Your task to perform on an android device: turn on the 24-hour format for clock Image 0: 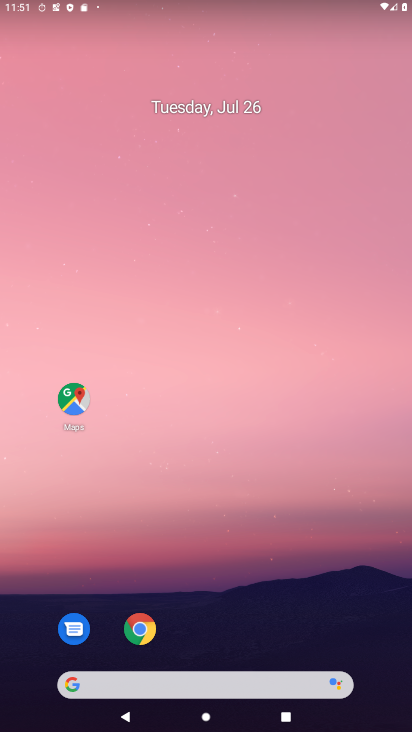
Step 0: drag from (364, 639) to (162, 45)
Your task to perform on an android device: turn on the 24-hour format for clock Image 1: 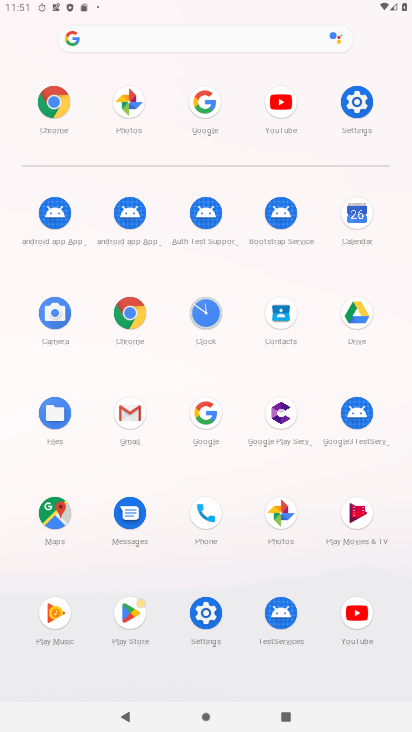
Step 1: click (206, 322)
Your task to perform on an android device: turn on the 24-hour format for clock Image 2: 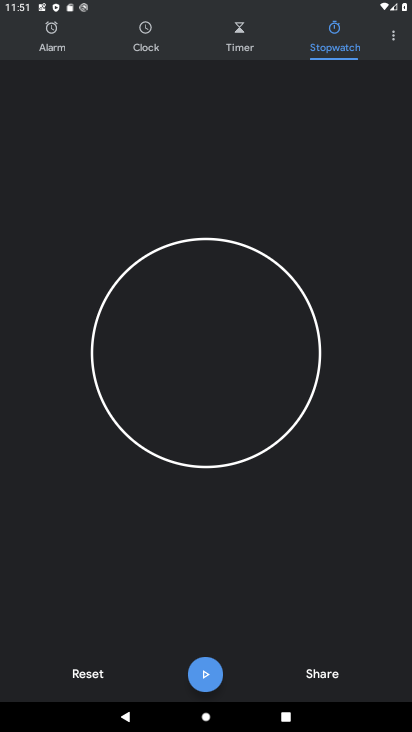
Step 2: click (390, 39)
Your task to perform on an android device: turn on the 24-hour format for clock Image 3: 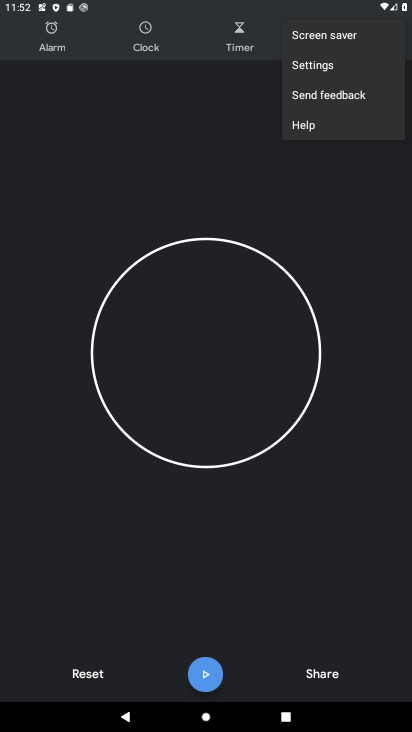
Step 3: click (318, 73)
Your task to perform on an android device: turn on the 24-hour format for clock Image 4: 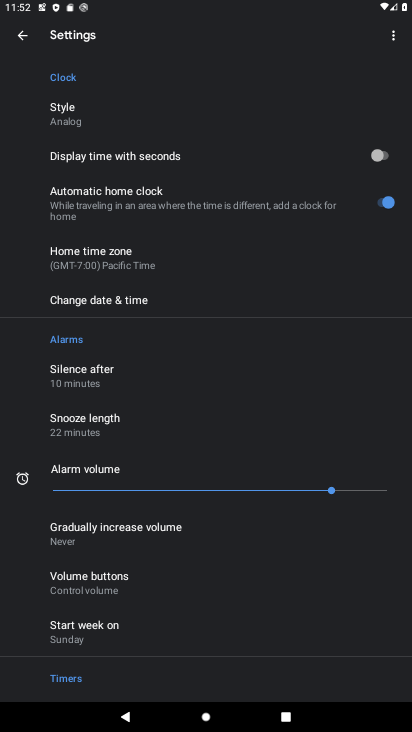
Step 4: click (118, 304)
Your task to perform on an android device: turn on the 24-hour format for clock Image 5: 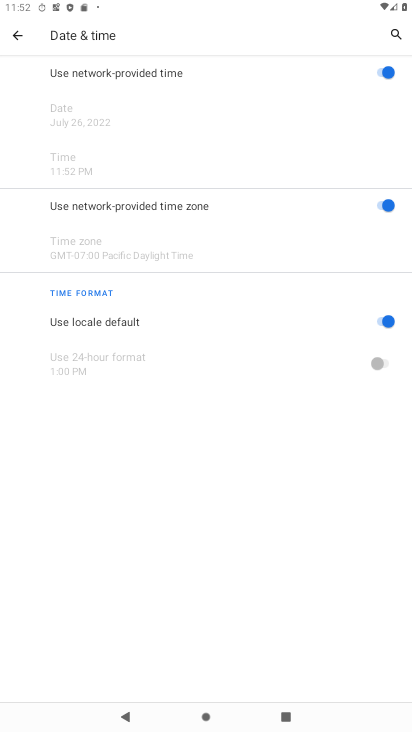
Step 5: task complete